Your task to perform on an android device: turn off javascript in the chrome app Image 0: 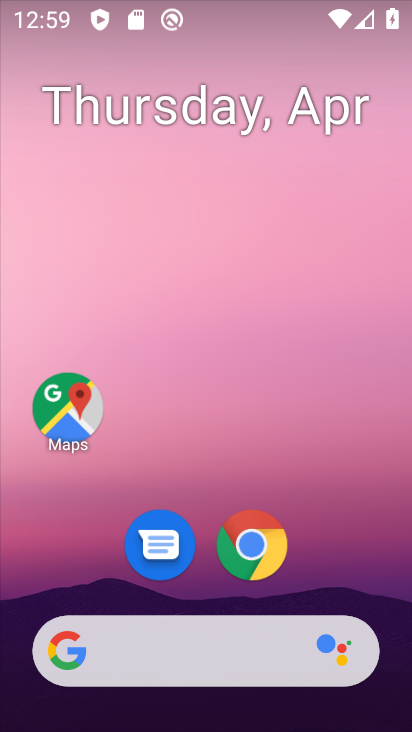
Step 0: drag from (163, 647) to (304, 108)
Your task to perform on an android device: turn off javascript in the chrome app Image 1: 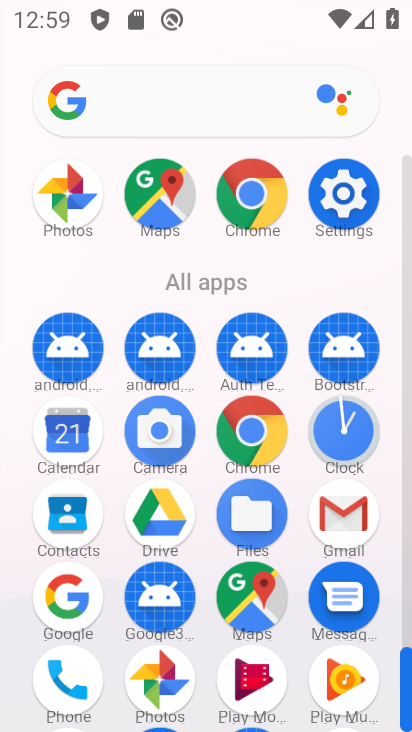
Step 1: click (262, 207)
Your task to perform on an android device: turn off javascript in the chrome app Image 2: 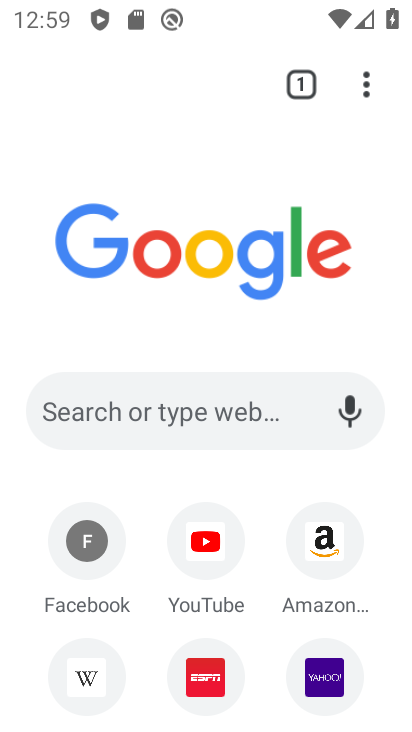
Step 2: click (359, 93)
Your task to perform on an android device: turn off javascript in the chrome app Image 3: 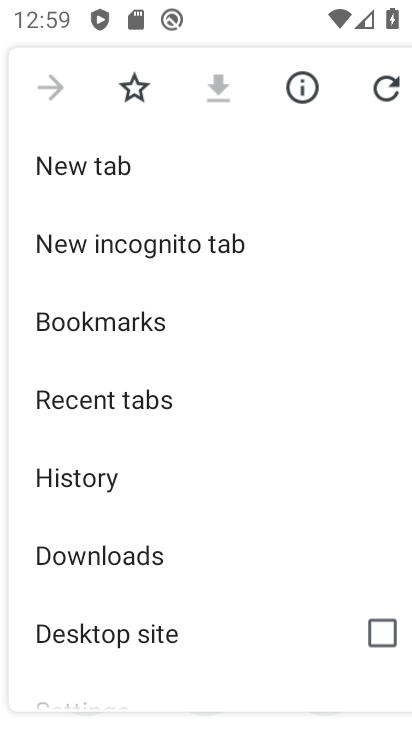
Step 3: click (355, 95)
Your task to perform on an android device: turn off javascript in the chrome app Image 4: 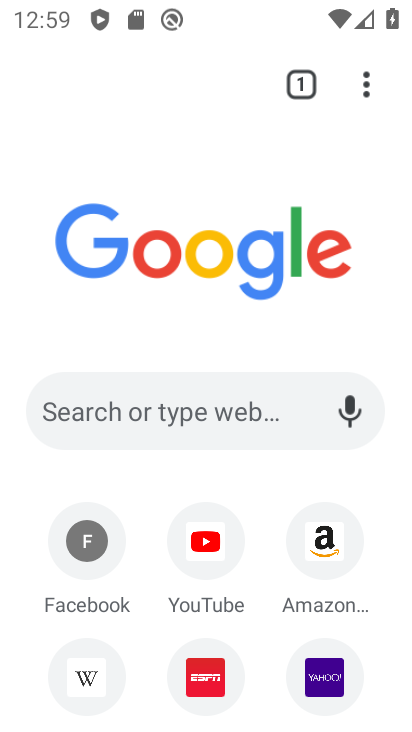
Step 4: click (356, 96)
Your task to perform on an android device: turn off javascript in the chrome app Image 5: 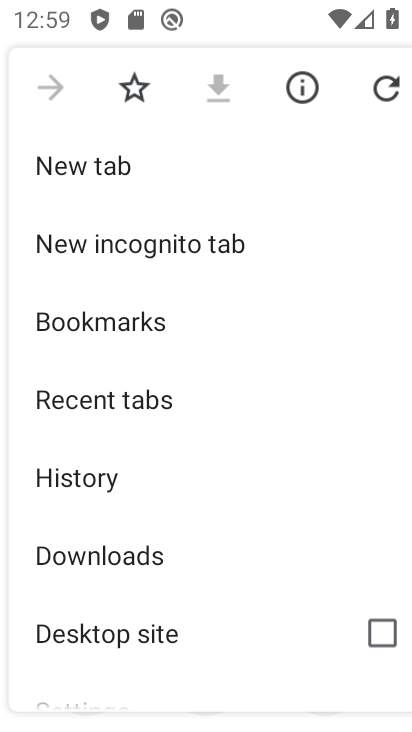
Step 5: drag from (202, 585) to (345, 127)
Your task to perform on an android device: turn off javascript in the chrome app Image 6: 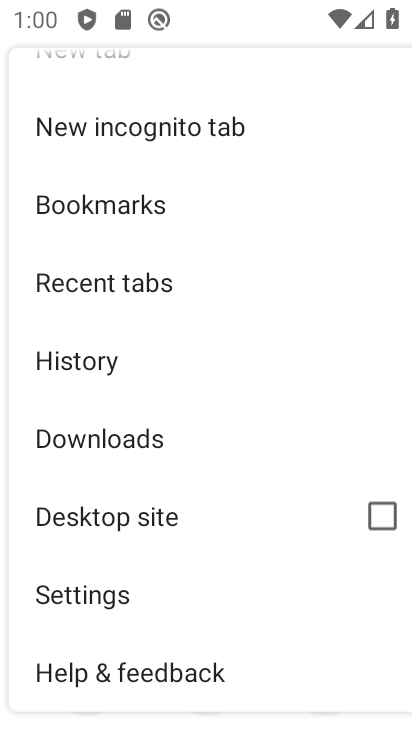
Step 6: click (99, 595)
Your task to perform on an android device: turn off javascript in the chrome app Image 7: 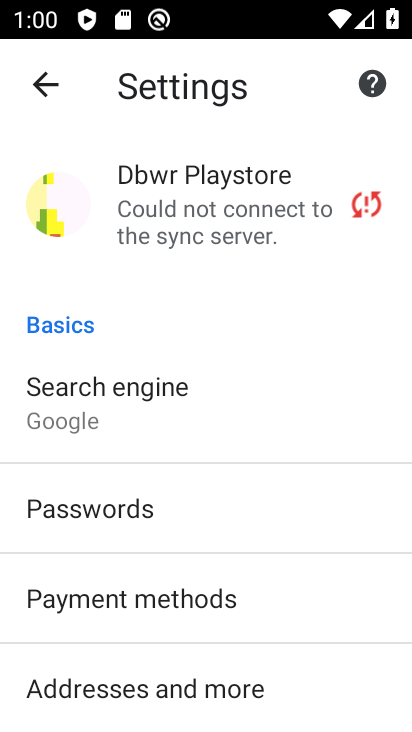
Step 7: drag from (173, 640) to (325, 249)
Your task to perform on an android device: turn off javascript in the chrome app Image 8: 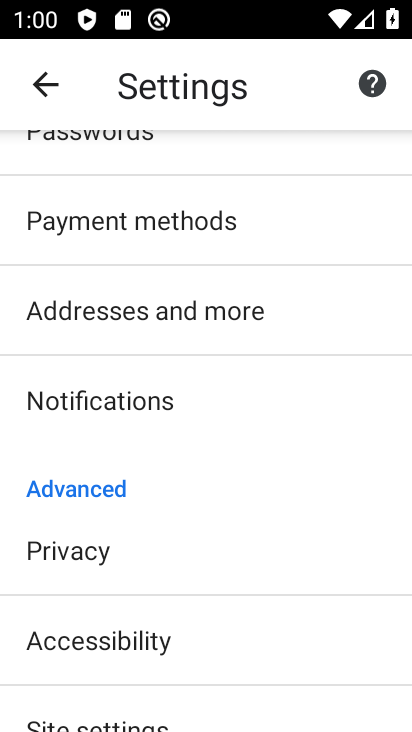
Step 8: drag from (175, 642) to (380, 222)
Your task to perform on an android device: turn off javascript in the chrome app Image 9: 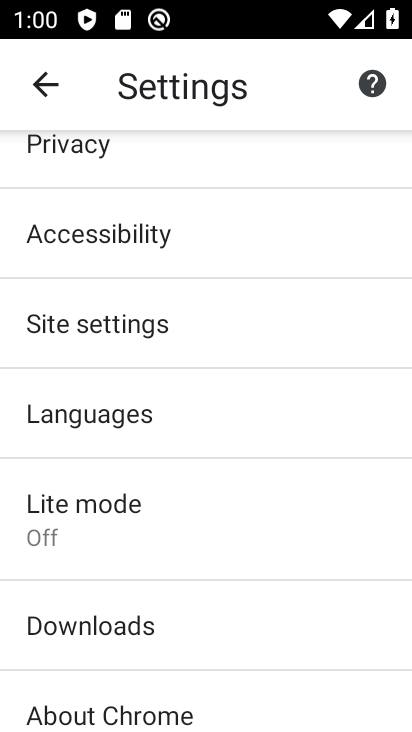
Step 9: click (119, 330)
Your task to perform on an android device: turn off javascript in the chrome app Image 10: 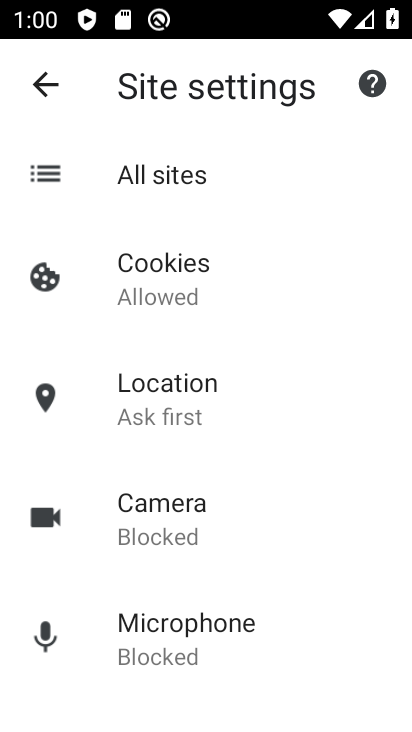
Step 10: drag from (162, 584) to (361, 120)
Your task to perform on an android device: turn off javascript in the chrome app Image 11: 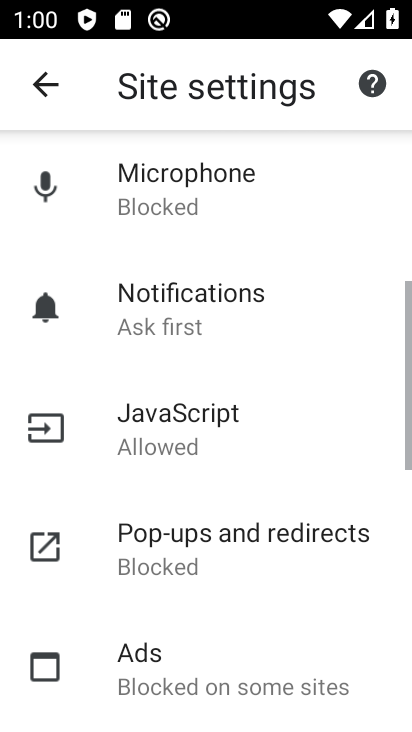
Step 11: click (199, 409)
Your task to perform on an android device: turn off javascript in the chrome app Image 12: 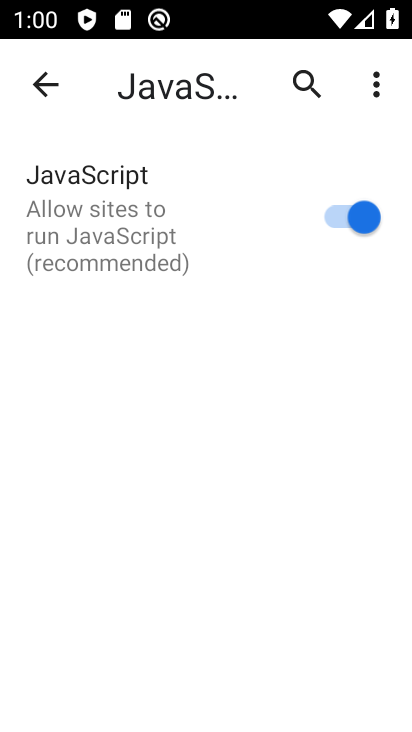
Step 12: click (340, 216)
Your task to perform on an android device: turn off javascript in the chrome app Image 13: 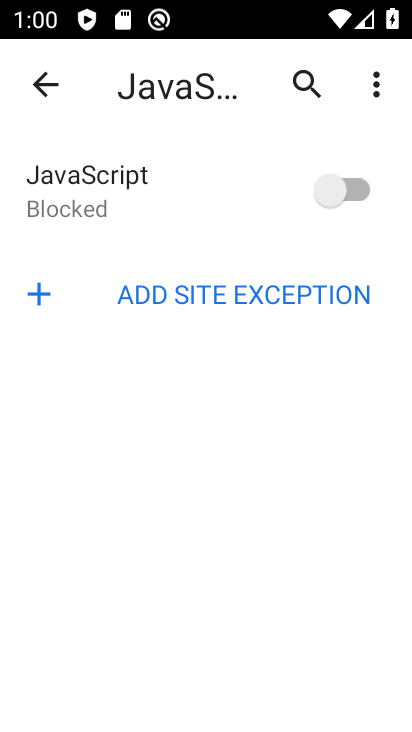
Step 13: task complete